Your task to perform on an android device: Go to settings Image 0: 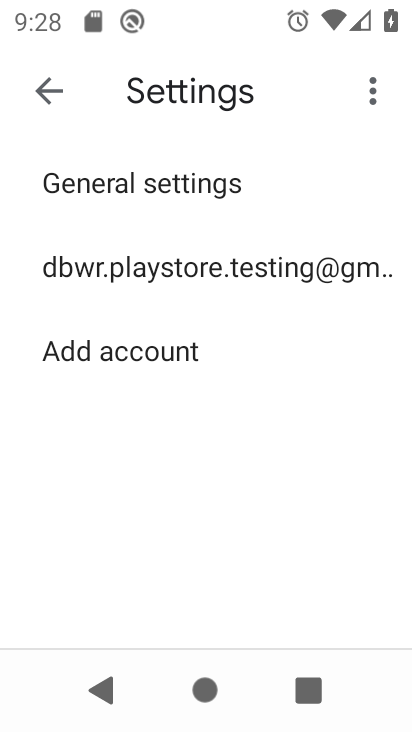
Step 0: press home button
Your task to perform on an android device: Go to settings Image 1: 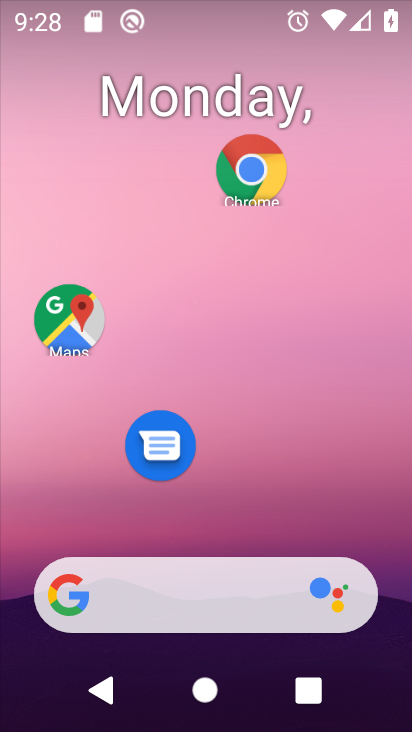
Step 1: drag from (224, 531) to (207, 68)
Your task to perform on an android device: Go to settings Image 2: 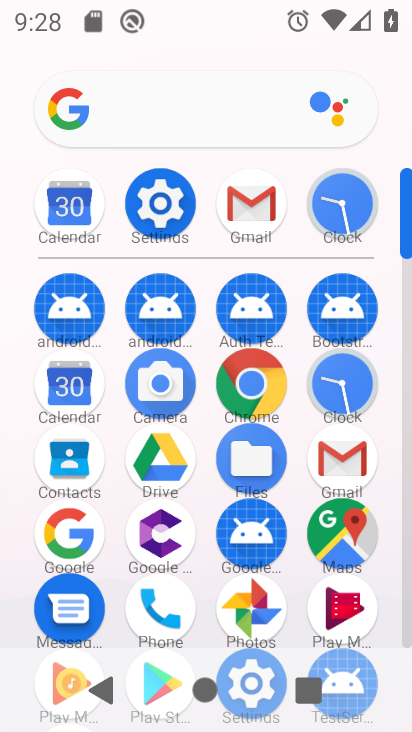
Step 2: click (156, 197)
Your task to perform on an android device: Go to settings Image 3: 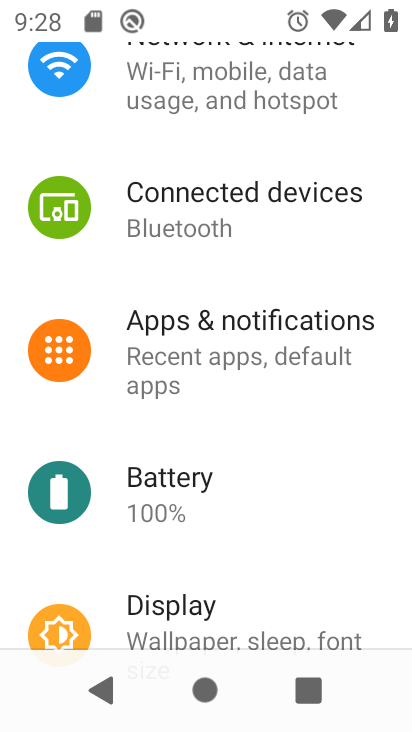
Step 3: task complete